Your task to perform on an android device: Find coffee shops on Maps Image 0: 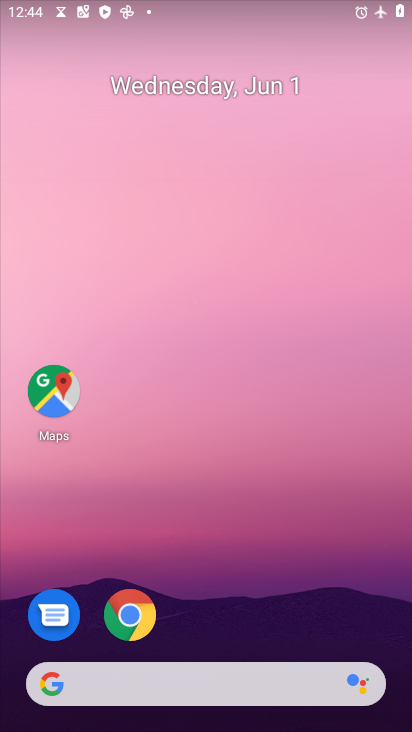
Step 0: drag from (294, 642) to (341, 138)
Your task to perform on an android device: Find coffee shops on Maps Image 1: 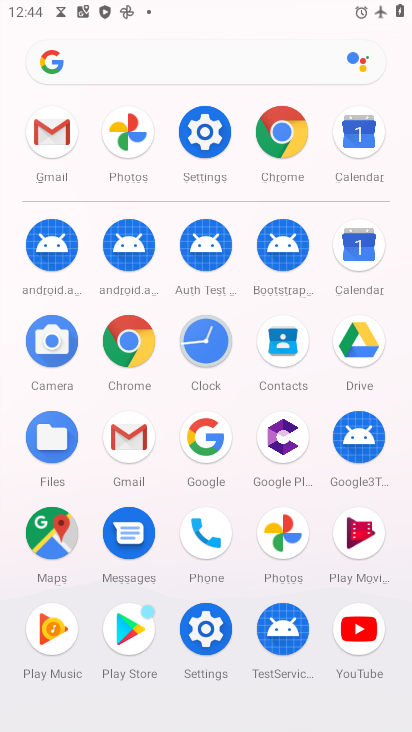
Step 1: click (38, 540)
Your task to perform on an android device: Find coffee shops on Maps Image 2: 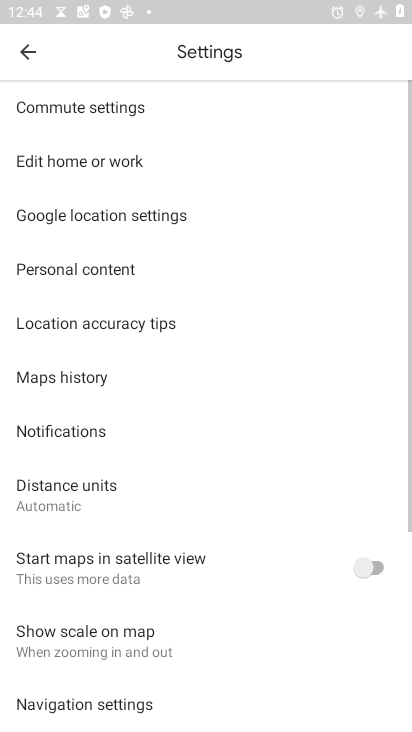
Step 2: click (29, 60)
Your task to perform on an android device: Find coffee shops on Maps Image 3: 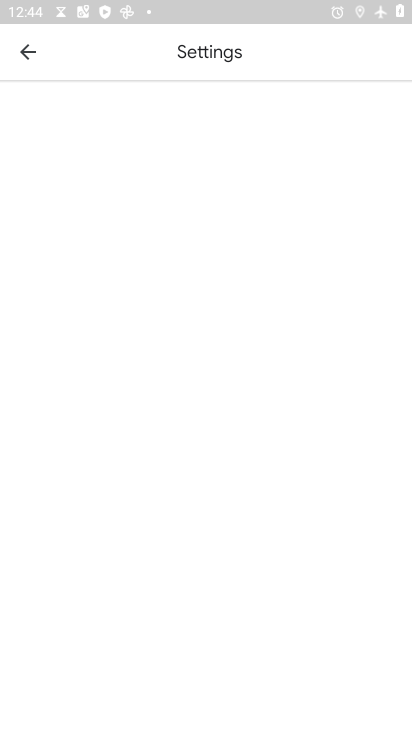
Step 3: click (29, 60)
Your task to perform on an android device: Find coffee shops on Maps Image 4: 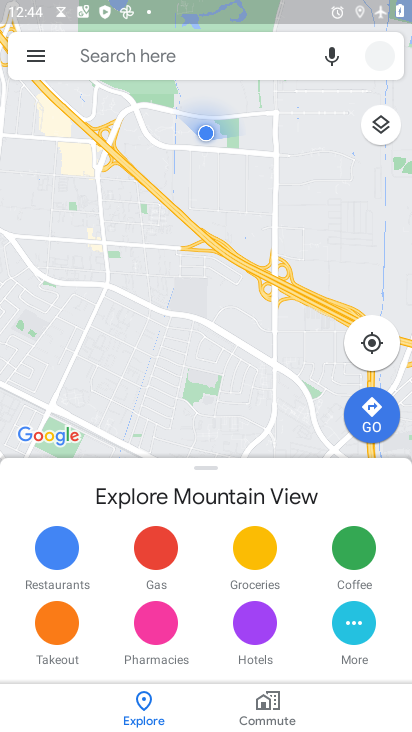
Step 4: click (215, 67)
Your task to perform on an android device: Find coffee shops on Maps Image 5: 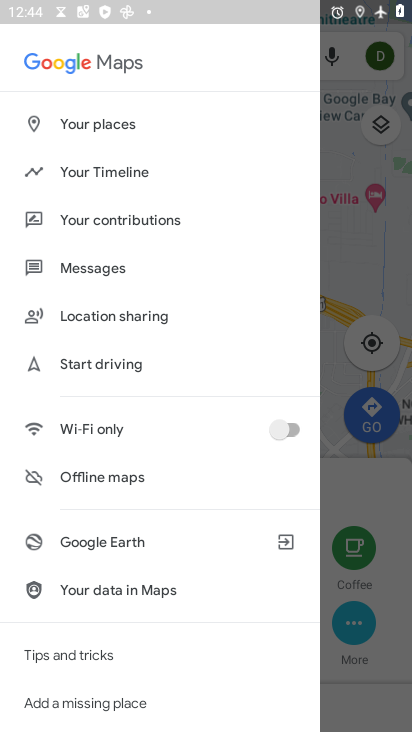
Step 5: press back button
Your task to perform on an android device: Find coffee shops on Maps Image 6: 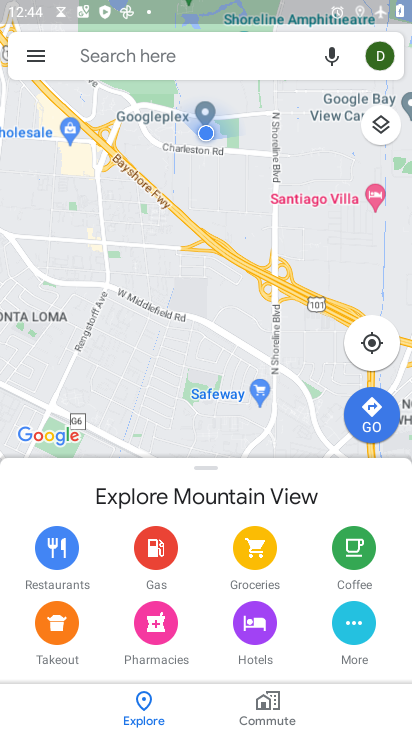
Step 6: click (220, 65)
Your task to perform on an android device: Find coffee shops on Maps Image 7: 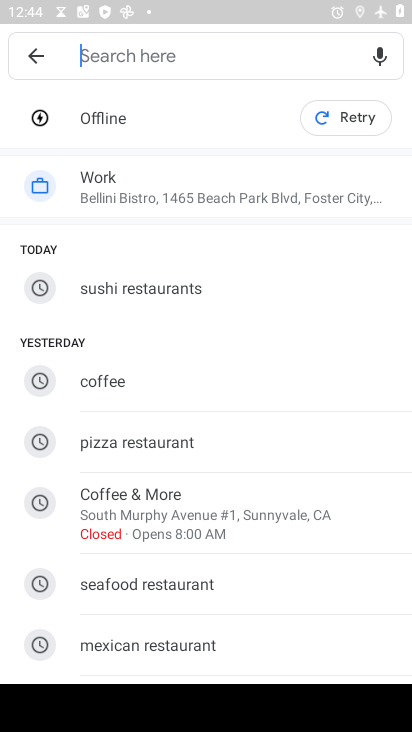
Step 7: click (100, 403)
Your task to perform on an android device: Find coffee shops on Maps Image 8: 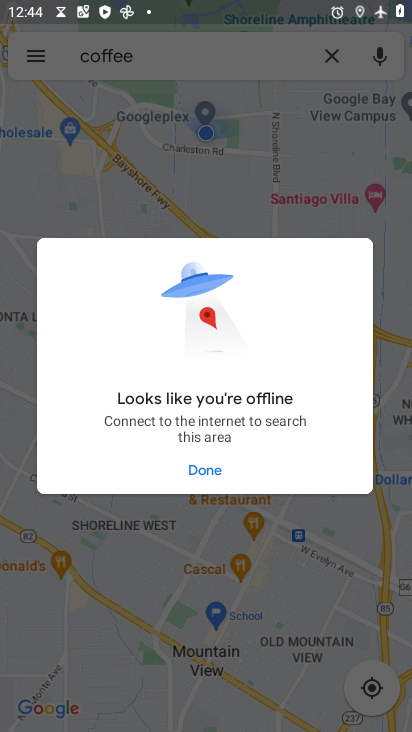
Step 8: task complete